Your task to perform on an android device: What's the weather going to be this weekend? Image 0: 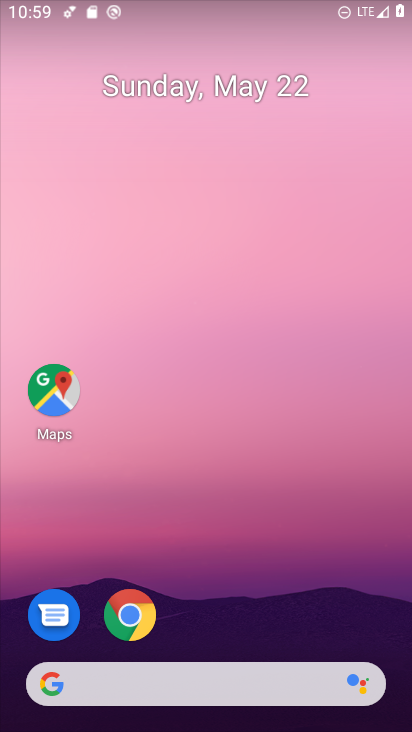
Step 0: click (129, 611)
Your task to perform on an android device: What's the weather going to be this weekend? Image 1: 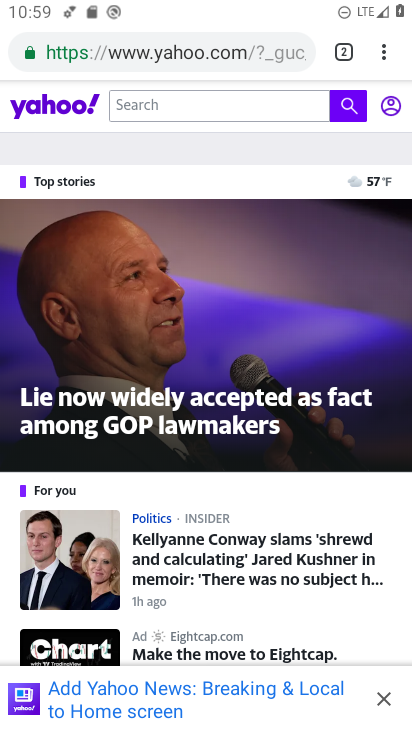
Step 1: click (172, 60)
Your task to perform on an android device: What's the weather going to be this weekend? Image 2: 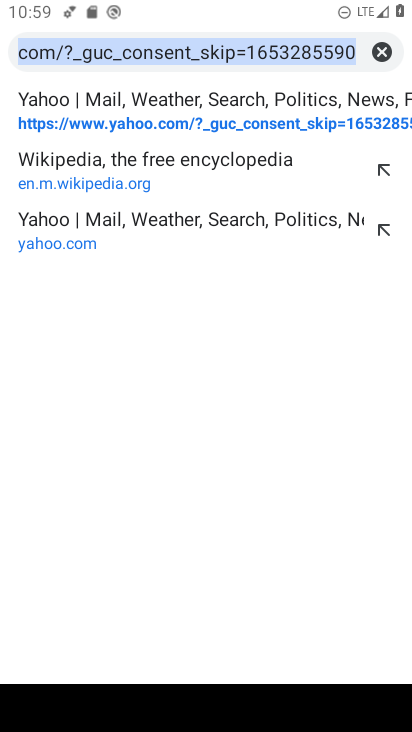
Step 2: click (377, 59)
Your task to perform on an android device: What's the weather going to be this weekend? Image 3: 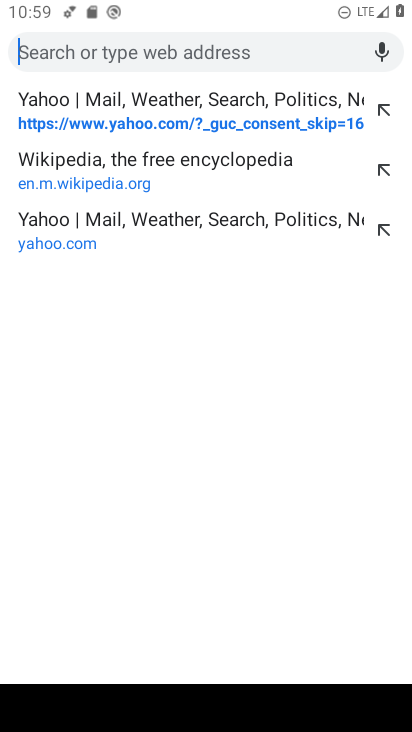
Step 3: type "weather"
Your task to perform on an android device: What's the weather going to be this weekend? Image 4: 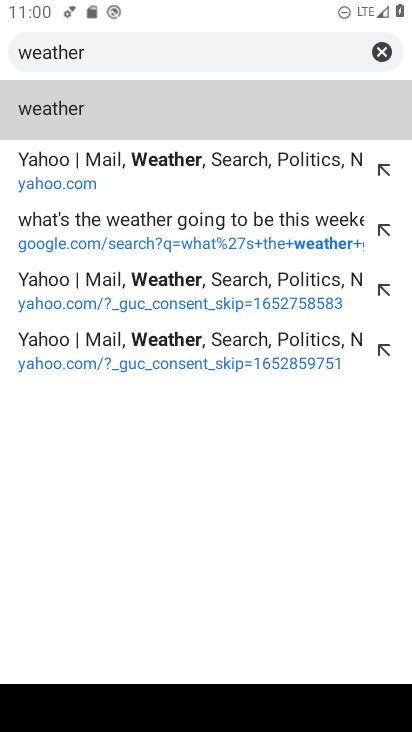
Step 4: click (82, 115)
Your task to perform on an android device: What's the weather going to be this weekend? Image 5: 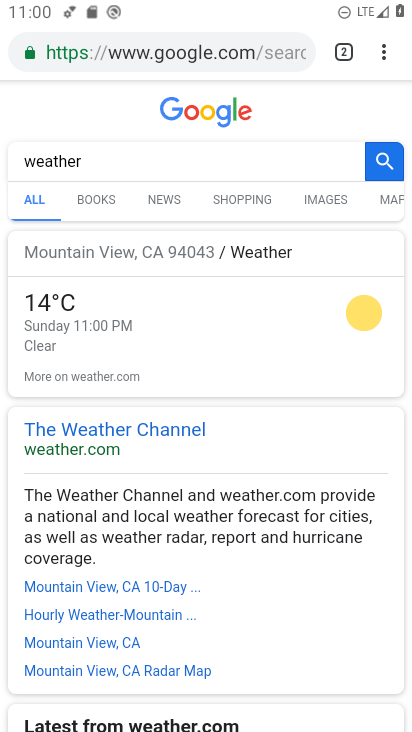
Step 5: drag from (142, 453) to (190, 83)
Your task to perform on an android device: What's the weather going to be this weekend? Image 6: 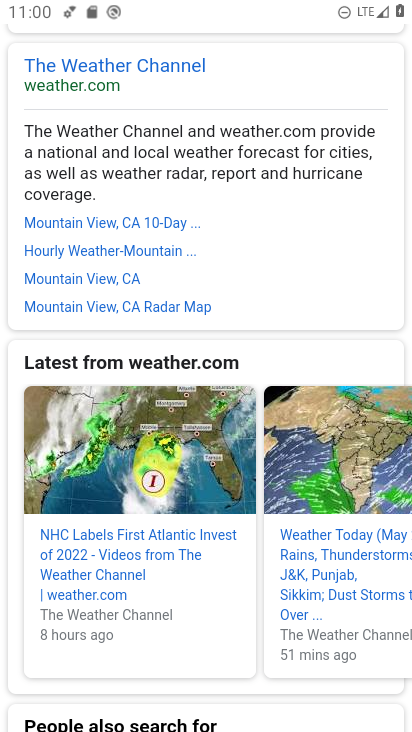
Step 6: click (88, 70)
Your task to perform on an android device: What's the weather going to be this weekend? Image 7: 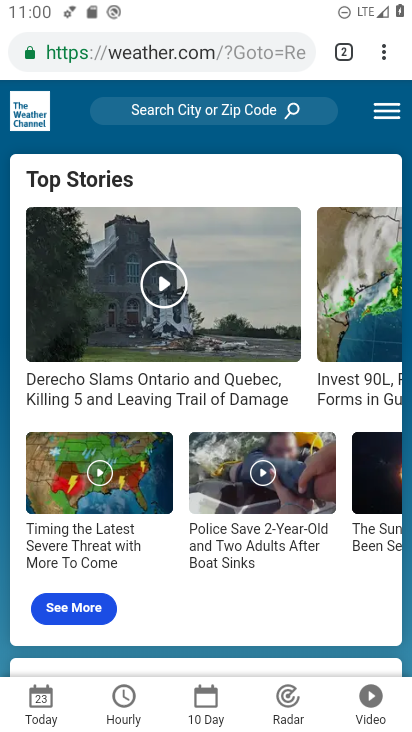
Step 7: drag from (249, 457) to (280, 23)
Your task to perform on an android device: What's the weather going to be this weekend? Image 8: 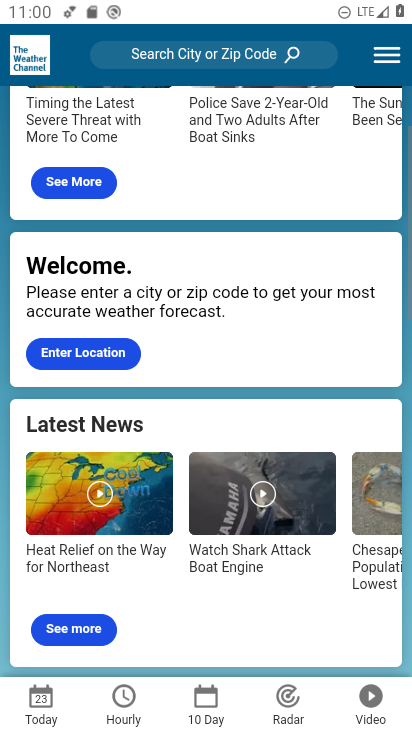
Step 8: drag from (250, 390) to (289, 67)
Your task to perform on an android device: What's the weather going to be this weekend? Image 9: 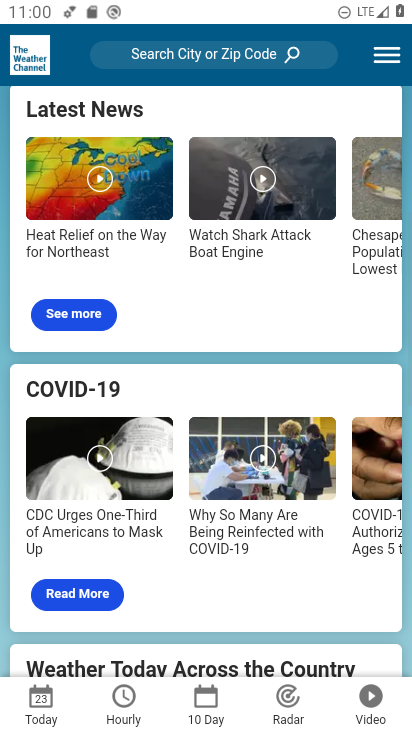
Step 9: click (199, 705)
Your task to perform on an android device: What's the weather going to be this weekend? Image 10: 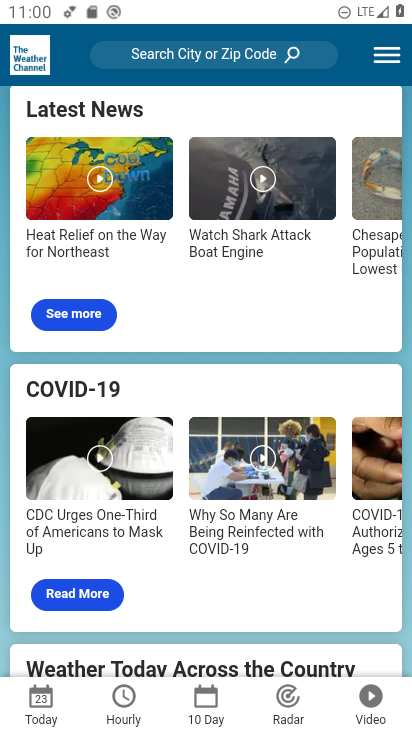
Step 10: click (199, 702)
Your task to perform on an android device: What's the weather going to be this weekend? Image 11: 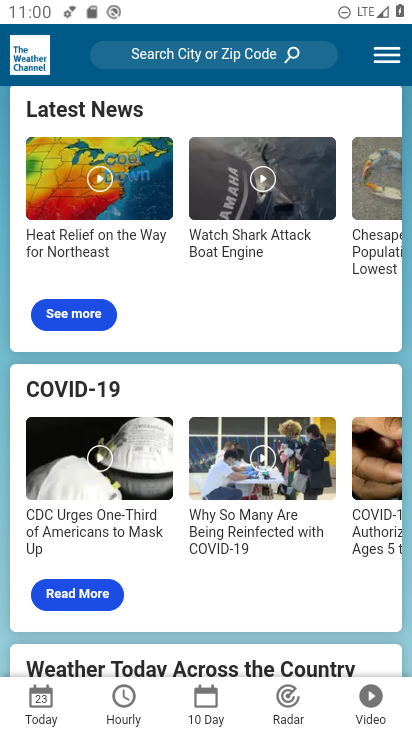
Step 11: click (206, 700)
Your task to perform on an android device: What's the weather going to be this weekend? Image 12: 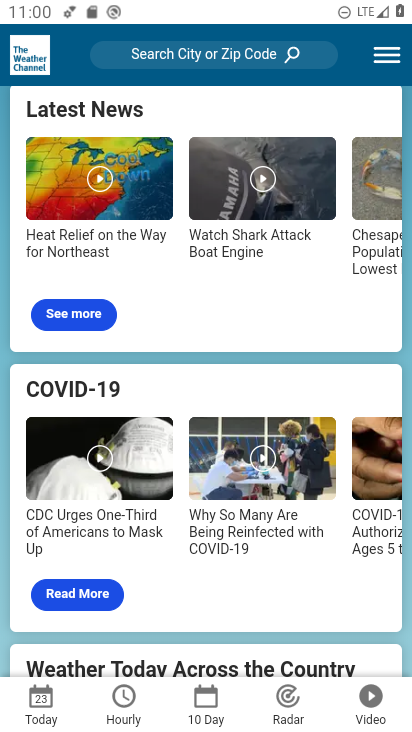
Step 12: drag from (237, 180) to (336, 701)
Your task to perform on an android device: What's the weather going to be this weekend? Image 13: 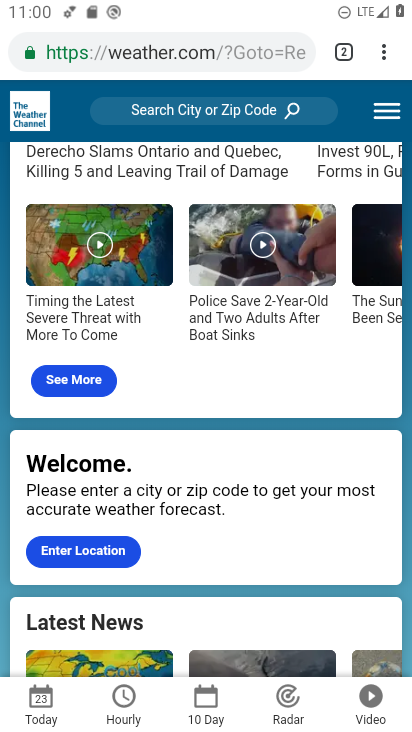
Step 13: drag from (254, 194) to (256, 681)
Your task to perform on an android device: What's the weather going to be this weekend? Image 14: 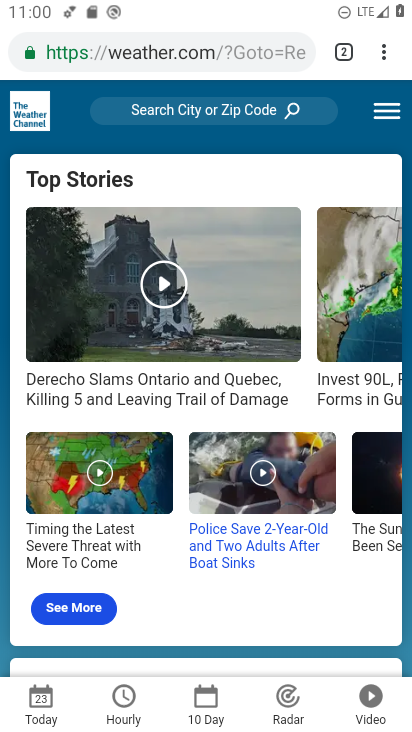
Step 14: drag from (227, 225) to (262, 649)
Your task to perform on an android device: What's the weather going to be this weekend? Image 15: 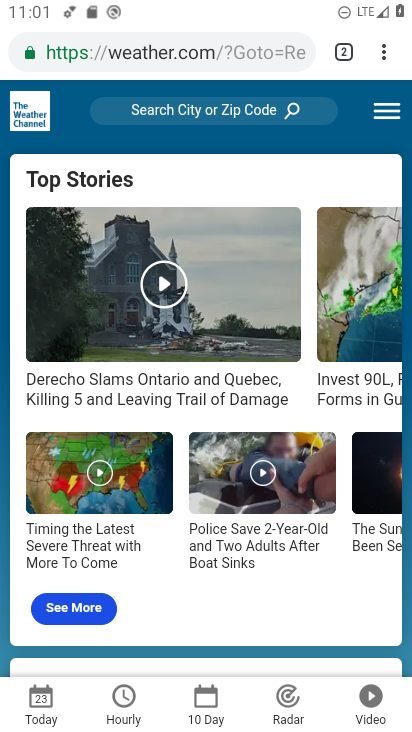
Step 15: click (199, 693)
Your task to perform on an android device: What's the weather going to be this weekend? Image 16: 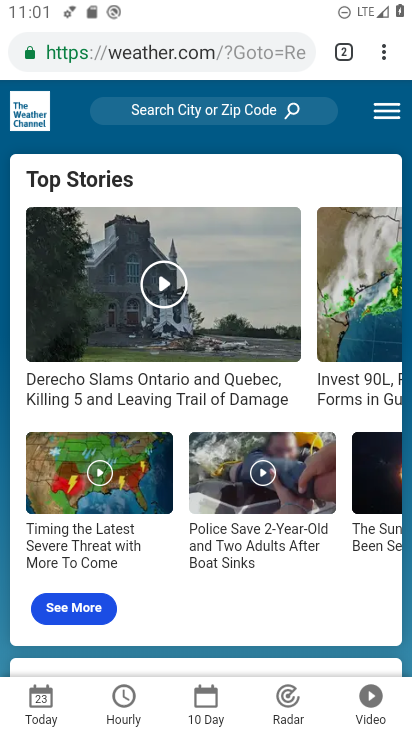
Step 16: click (37, 697)
Your task to perform on an android device: What's the weather going to be this weekend? Image 17: 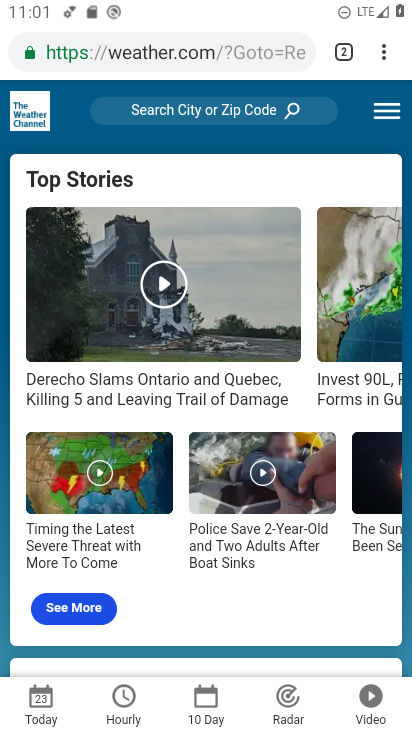
Step 17: click (124, 706)
Your task to perform on an android device: What's the weather going to be this weekend? Image 18: 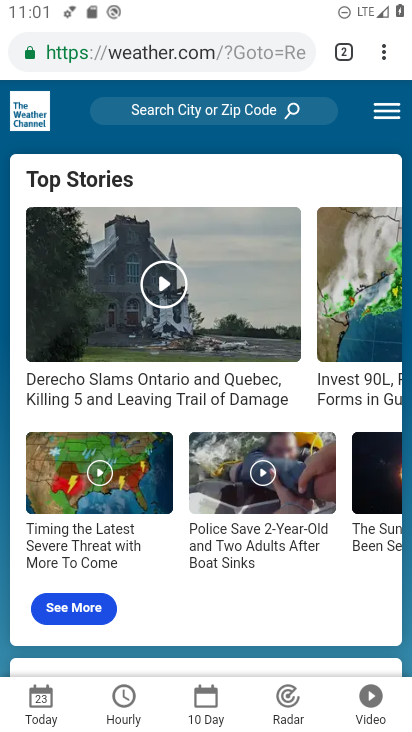
Step 18: click (221, 704)
Your task to perform on an android device: What's the weather going to be this weekend? Image 19: 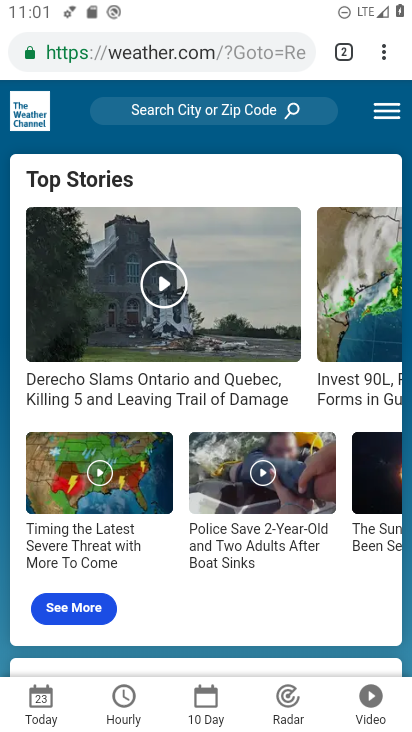
Step 19: click (381, 104)
Your task to perform on an android device: What's the weather going to be this weekend? Image 20: 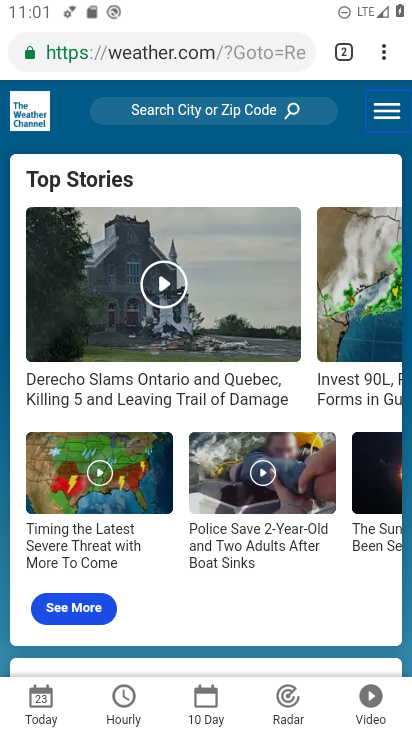
Step 20: drag from (291, 634) to (351, 119)
Your task to perform on an android device: What's the weather going to be this weekend? Image 21: 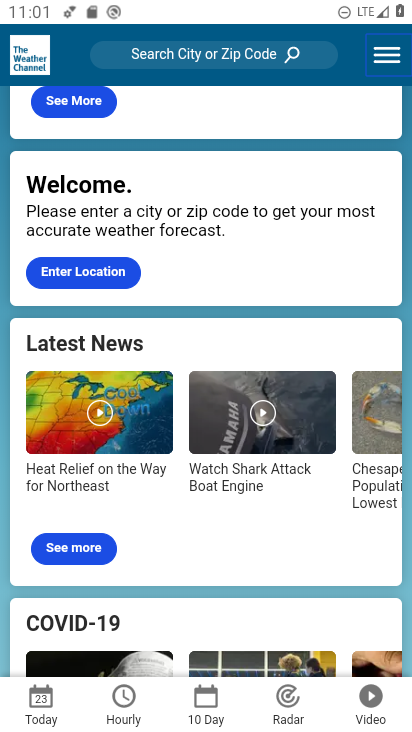
Step 21: drag from (217, 480) to (291, 139)
Your task to perform on an android device: What's the weather going to be this weekend? Image 22: 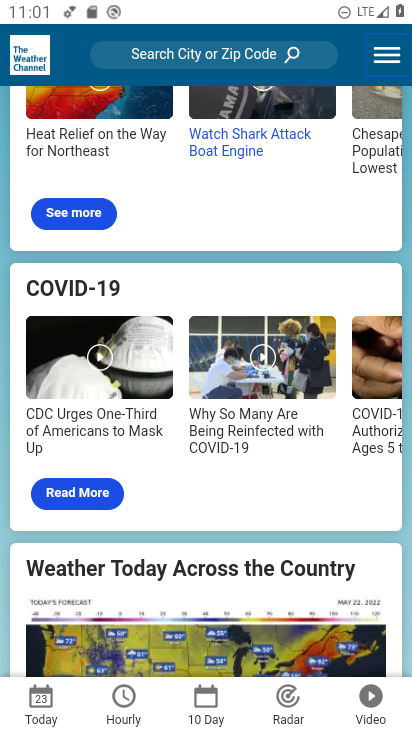
Step 22: drag from (224, 520) to (313, 110)
Your task to perform on an android device: What's the weather going to be this weekend? Image 23: 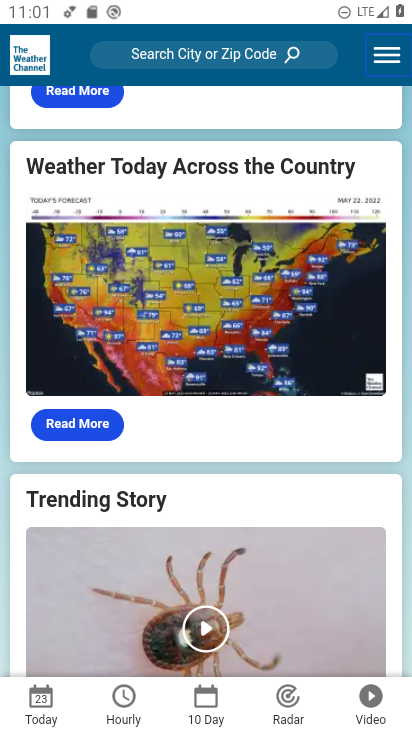
Step 23: drag from (213, 555) to (285, 151)
Your task to perform on an android device: What's the weather going to be this weekend? Image 24: 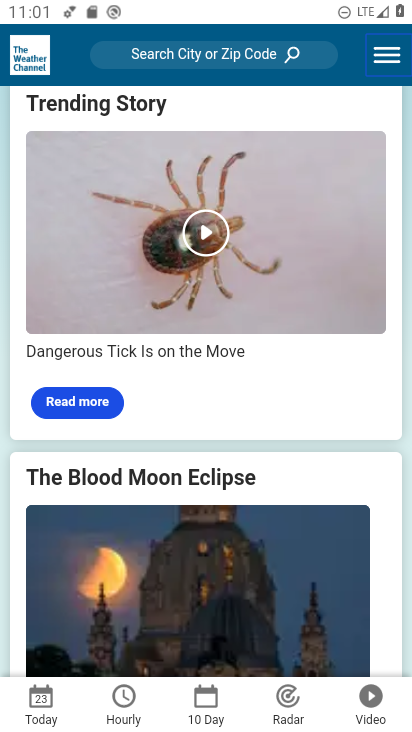
Step 24: drag from (196, 543) to (277, 216)
Your task to perform on an android device: What's the weather going to be this weekend? Image 25: 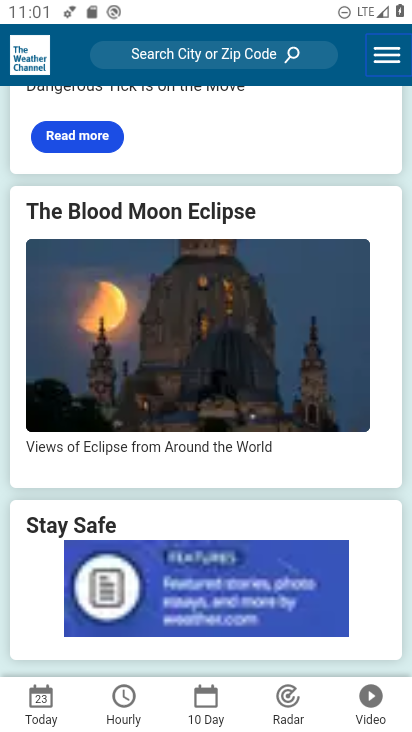
Step 25: drag from (230, 513) to (315, 52)
Your task to perform on an android device: What's the weather going to be this weekend? Image 26: 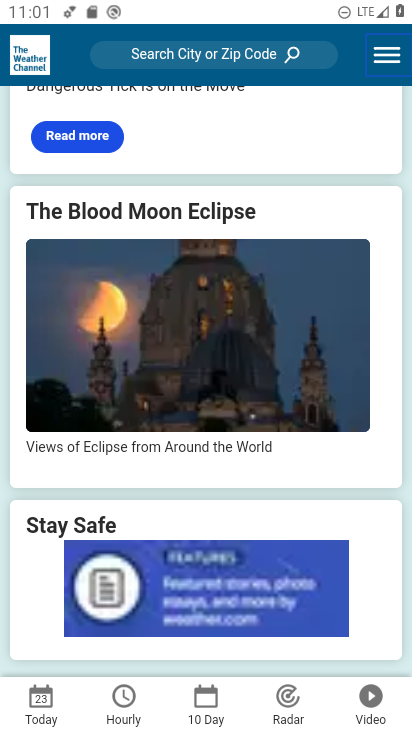
Step 26: click (205, 704)
Your task to perform on an android device: What's the weather going to be this weekend? Image 27: 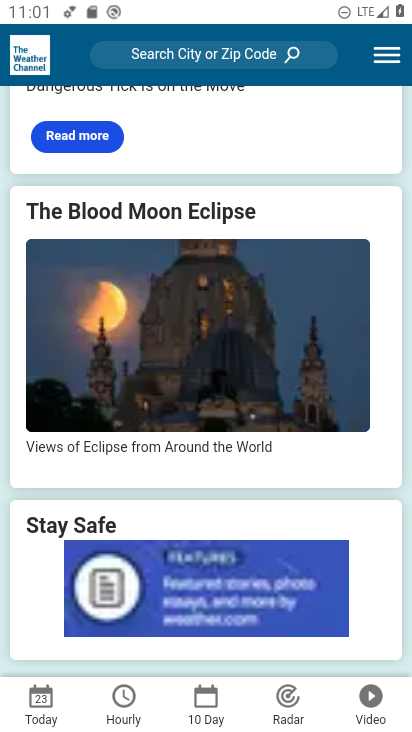
Step 27: drag from (242, 583) to (293, 202)
Your task to perform on an android device: What's the weather going to be this weekend? Image 28: 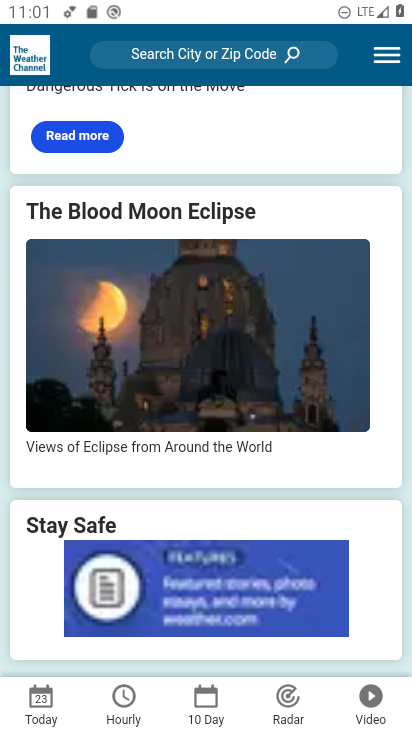
Step 28: drag from (300, 183) to (328, 634)
Your task to perform on an android device: What's the weather going to be this weekend? Image 29: 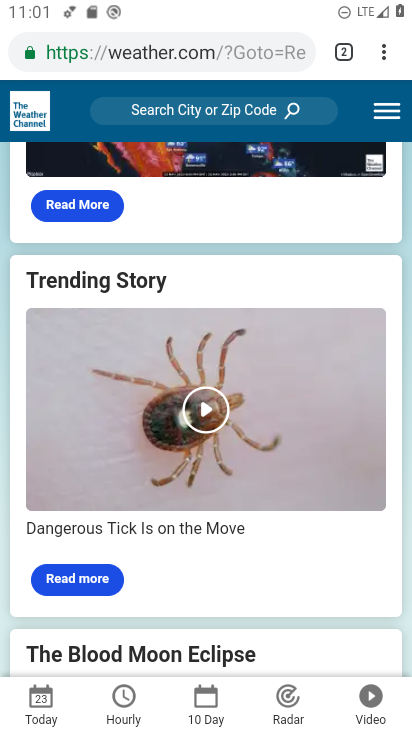
Step 29: drag from (266, 237) to (286, 613)
Your task to perform on an android device: What's the weather going to be this weekend? Image 30: 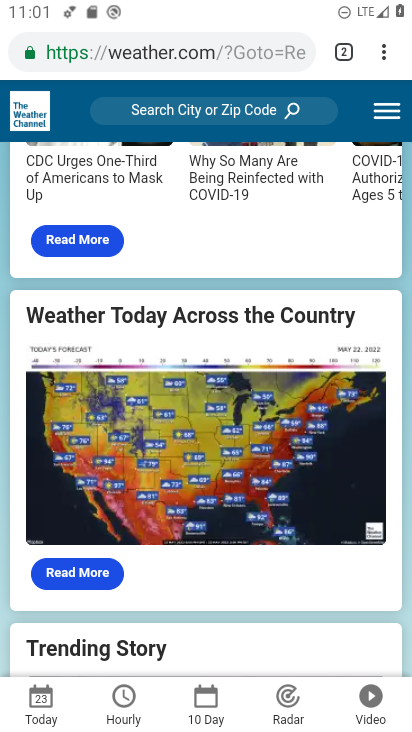
Step 30: drag from (246, 177) to (295, 591)
Your task to perform on an android device: What's the weather going to be this weekend? Image 31: 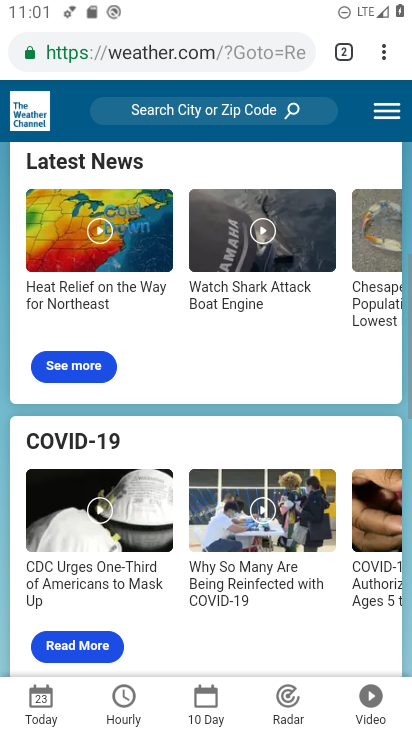
Step 31: drag from (243, 198) to (287, 602)
Your task to perform on an android device: What's the weather going to be this weekend? Image 32: 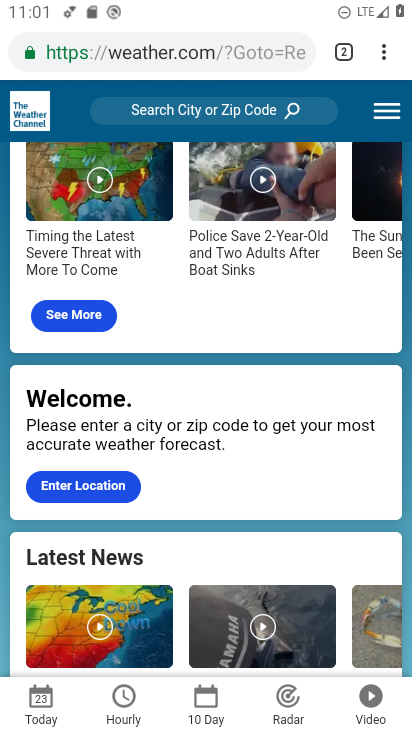
Step 32: drag from (237, 238) to (271, 616)
Your task to perform on an android device: What's the weather going to be this weekend? Image 33: 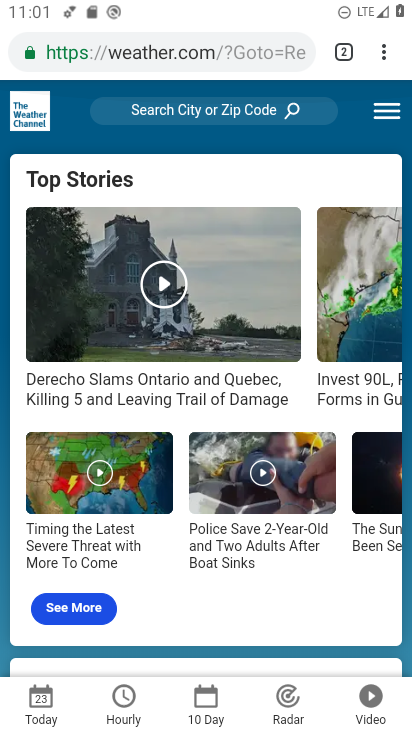
Step 33: drag from (258, 254) to (186, 544)
Your task to perform on an android device: What's the weather going to be this weekend? Image 34: 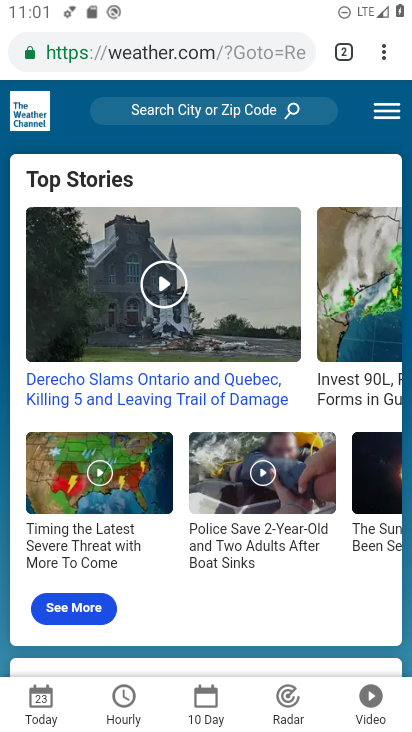
Step 34: click (383, 116)
Your task to perform on an android device: What's the weather going to be this weekend? Image 35: 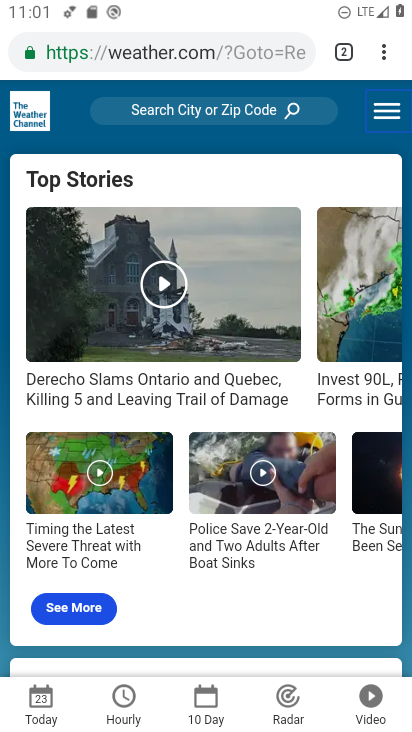
Step 35: click (123, 714)
Your task to perform on an android device: What's the weather going to be this weekend? Image 36: 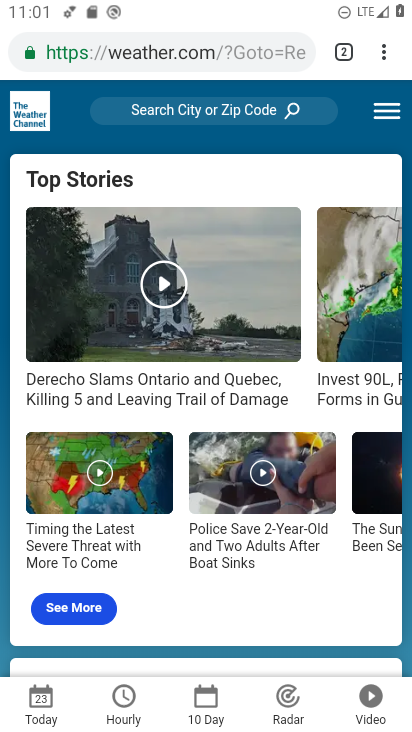
Step 36: click (45, 703)
Your task to perform on an android device: What's the weather going to be this weekend? Image 37: 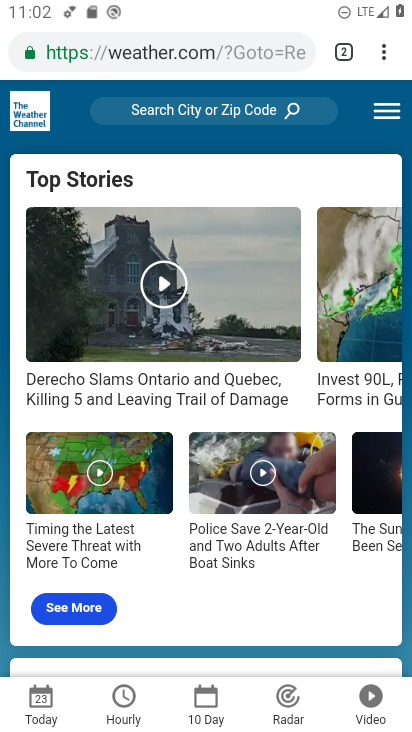
Step 37: click (225, 58)
Your task to perform on an android device: What's the weather going to be this weekend? Image 38: 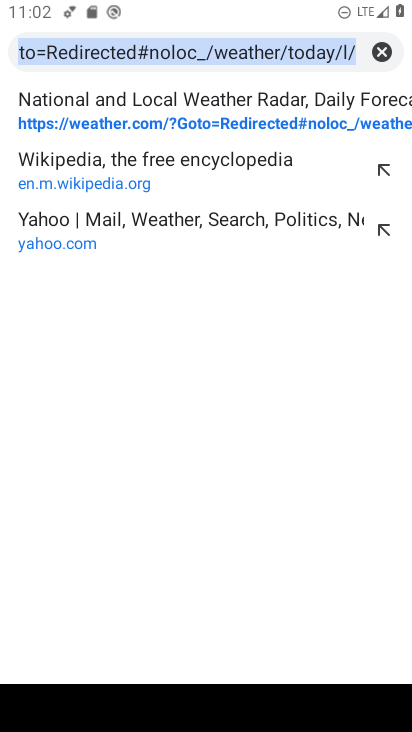
Step 38: type "weather"
Your task to perform on an android device: What's the weather going to be this weekend? Image 39: 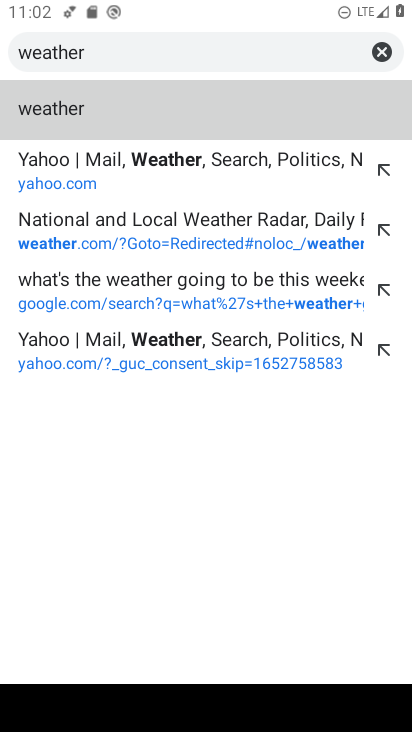
Step 39: click (64, 98)
Your task to perform on an android device: What's the weather going to be this weekend? Image 40: 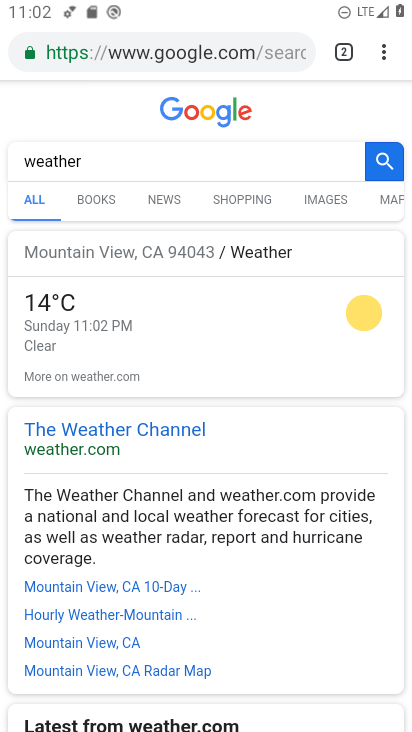
Step 40: drag from (284, 555) to (315, 83)
Your task to perform on an android device: What's the weather going to be this weekend? Image 41: 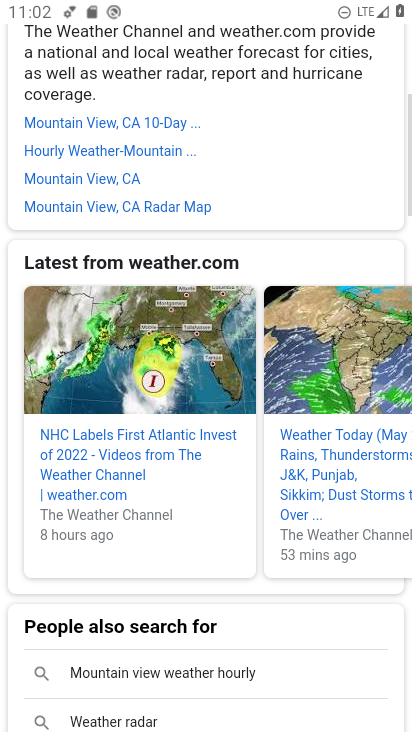
Step 41: drag from (121, 575) to (279, 91)
Your task to perform on an android device: What's the weather going to be this weekend? Image 42: 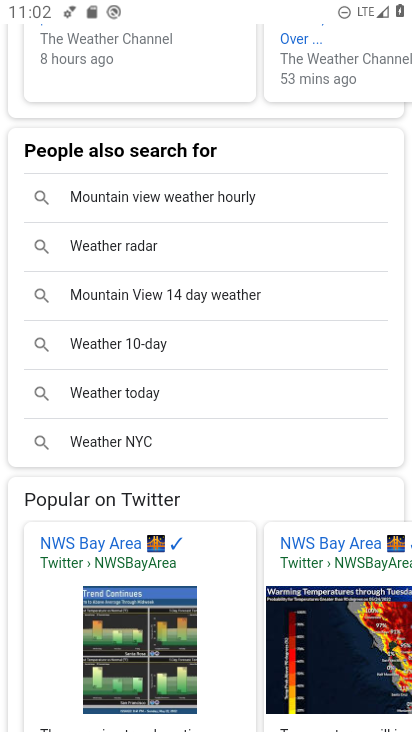
Step 42: drag from (164, 585) to (270, 67)
Your task to perform on an android device: What's the weather going to be this weekend? Image 43: 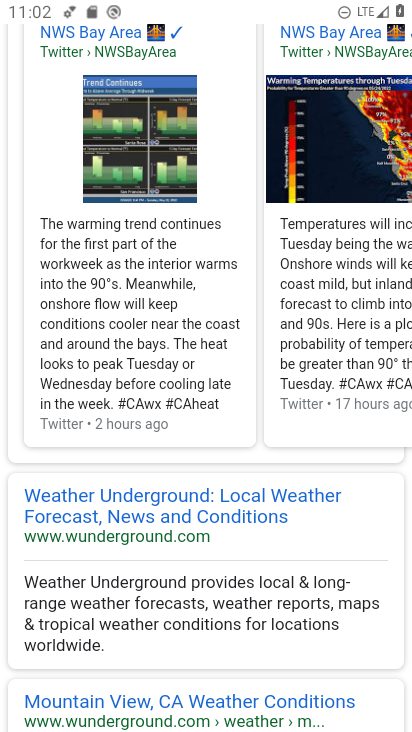
Step 43: drag from (214, 168) to (203, 718)
Your task to perform on an android device: What's the weather going to be this weekend? Image 44: 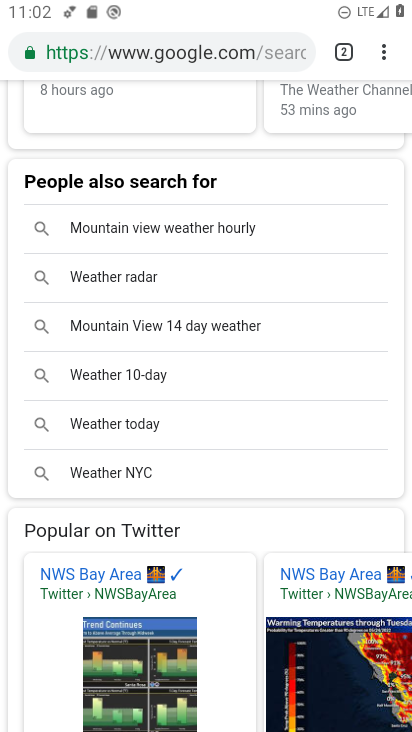
Step 44: drag from (222, 288) to (244, 729)
Your task to perform on an android device: What's the weather going to be this weekend? Image 45: 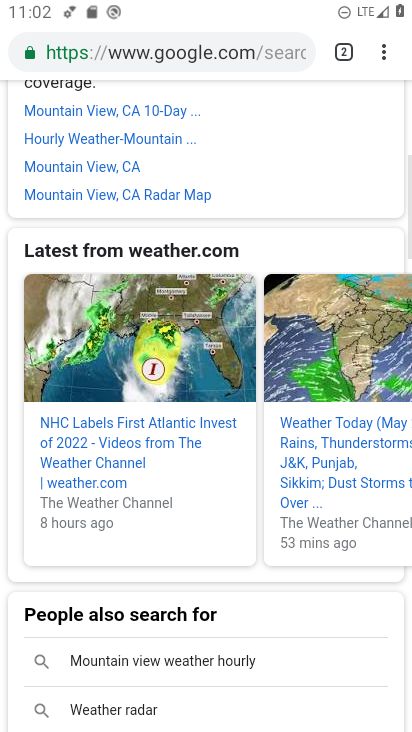
Step 45: drag from (298, 236) to (289, 716)
Your task to perform on an android device: What's the weather going to be this weekend? Image 46: 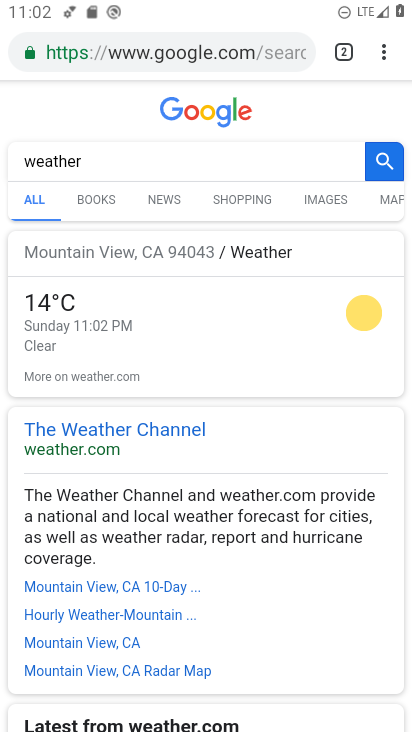
Step 46: click (191, 430)
Your task to perform on an android device: What's the weather going to be this weekend? Image 47: 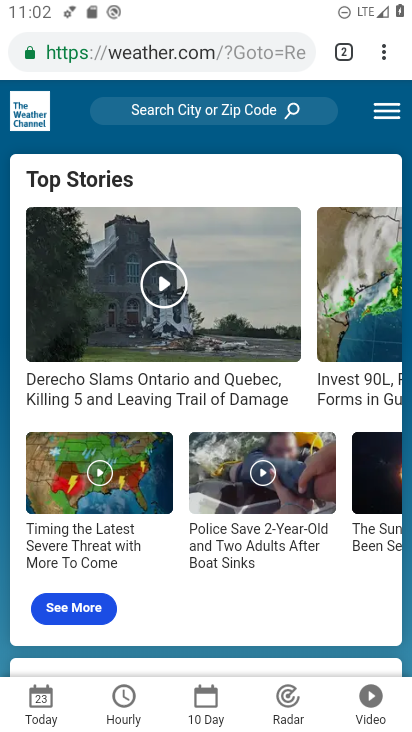
Step 47: press back button
Your task to perform on an android device: What's the weather going to be this weekend? Image 48: 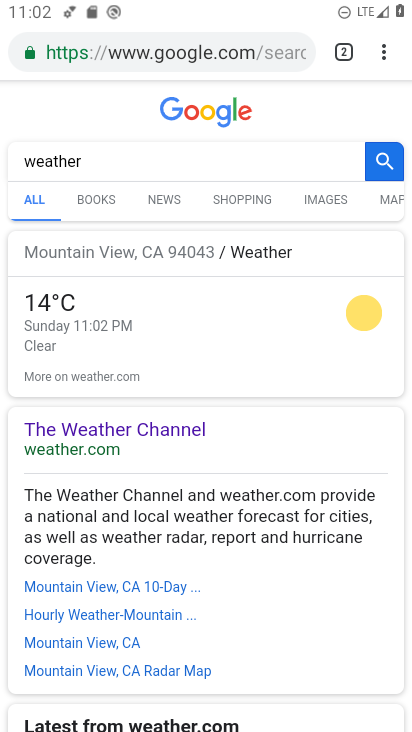
Step 48: click (57, 376)
Your task to perform on an android device: What's the weather going to be this weekend? Image 49: 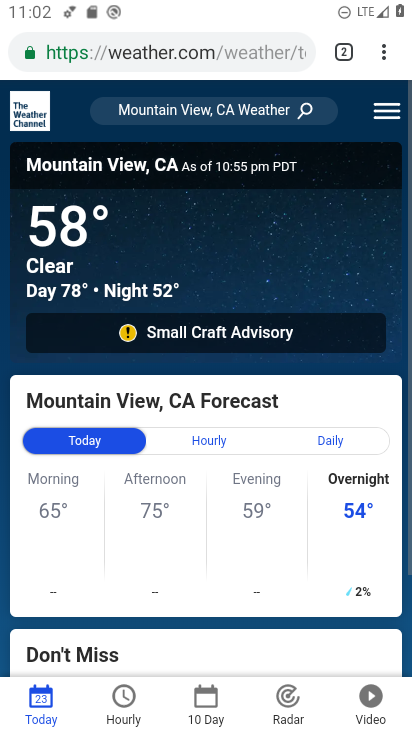
Step 49: drag from (266, 551) to (321, 95)
Your task to perform on an android device: What's the weather going to be this weekend? Image 50: 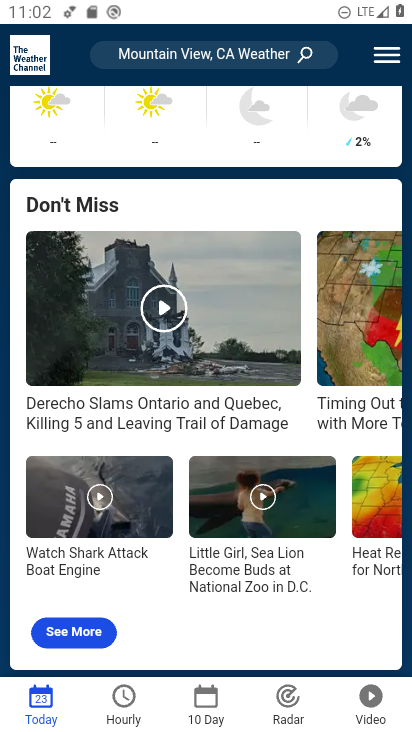
Step 50: drag from (240, 246) to (216, 681)
Your task to perform on an android device: What's the weather going to be this weekend? Image 51: 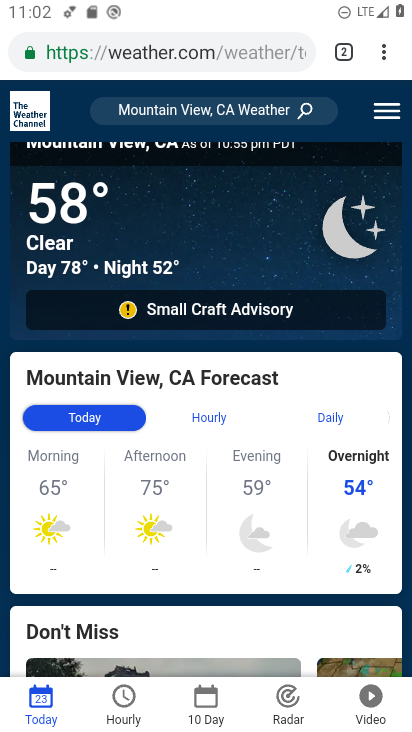
Step 51: click (219, 718)
Your task to perform on an android device: What's the weather going to be this weekend? Image 52: 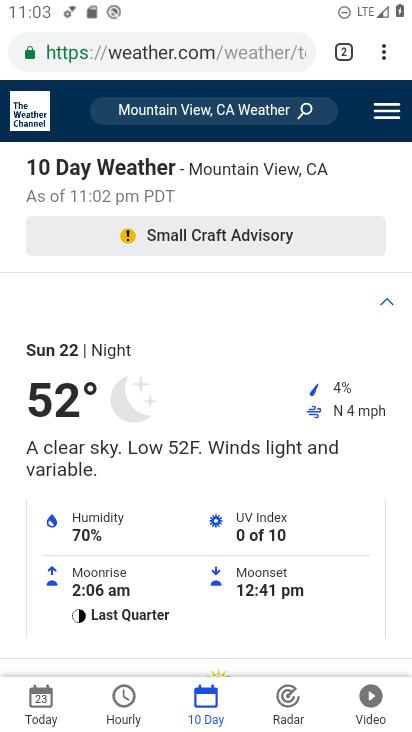
Step 52: drag from (208, 591) to (244, 191)
Your task to perform on an android device: What's the weather going to be this weekend? Image 53: 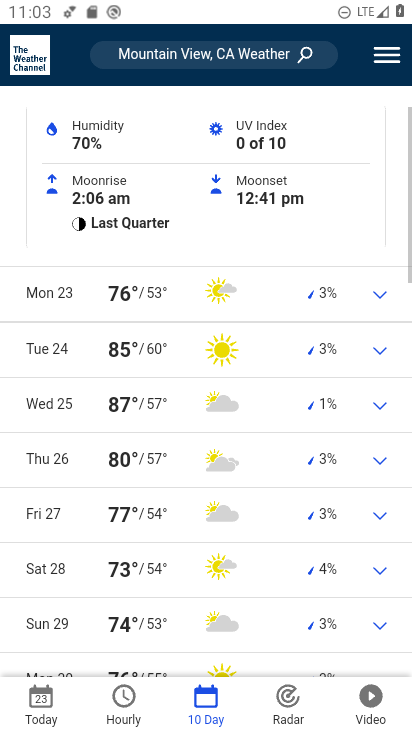
Step 53: drag from (163, 593) to (239, 374)
Your task to perform on an android device: What's the weather going to be this weekend? Image 54: 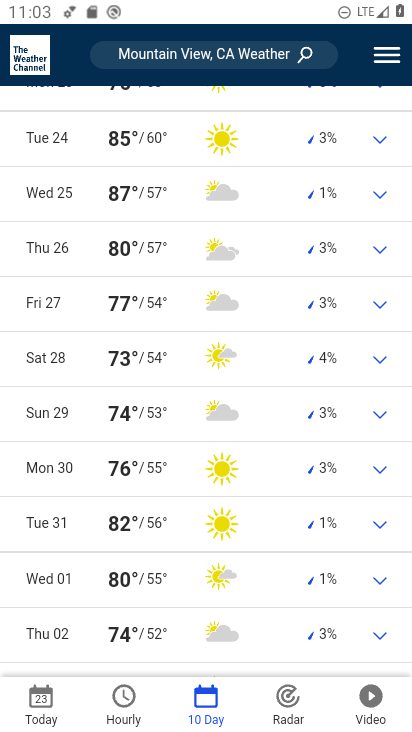
Step 54: click (47, 357)
Your task to perform on an android device: What's the weather going to be this weekend? Image 55: 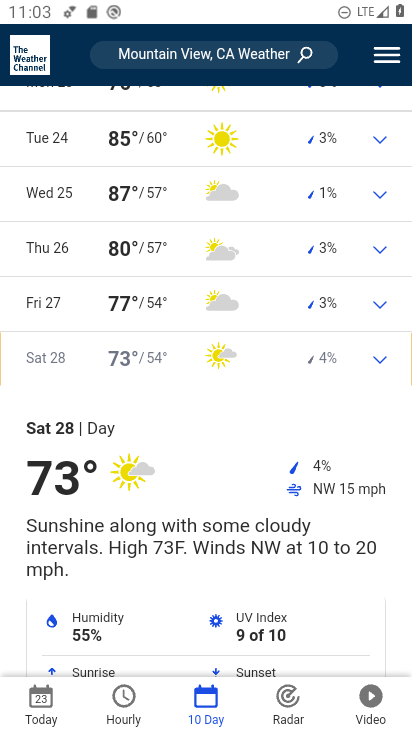
Step 55: task complete